Your task to perform on an android device: Open the stopwatch Image 0: 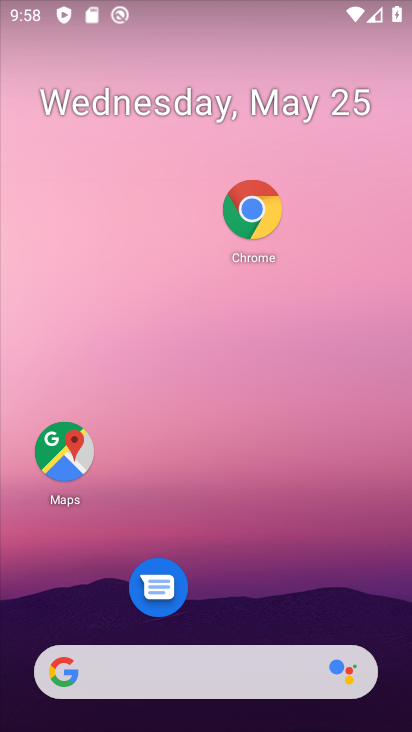
Step 0: drag from (241, 628) to (241, 201)
Your task to perform on an android device: Open the stopwatch Image 1: 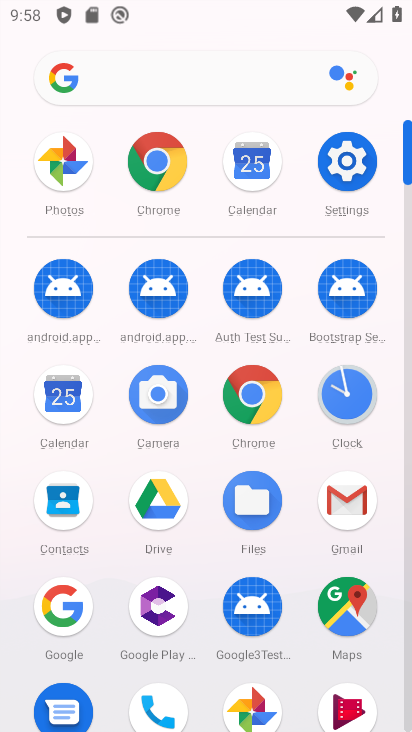
Step 1: click (338, 390)
Your task to perform on an android device: Open the stopwatch Image 2: 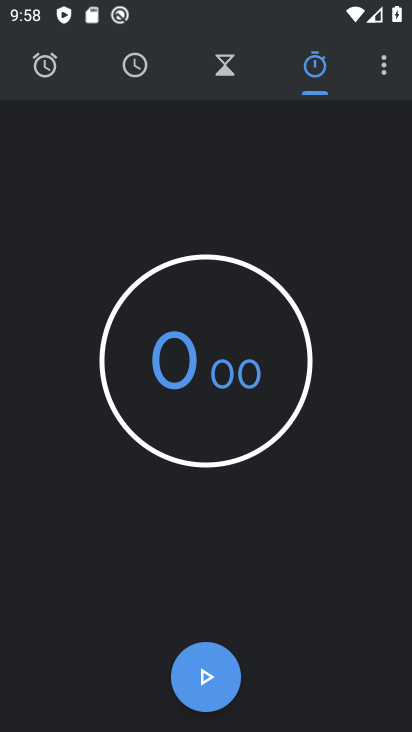
Step 2: click (185, 684)
Your task to perform on an android device: Open the stopwatch Image 3: 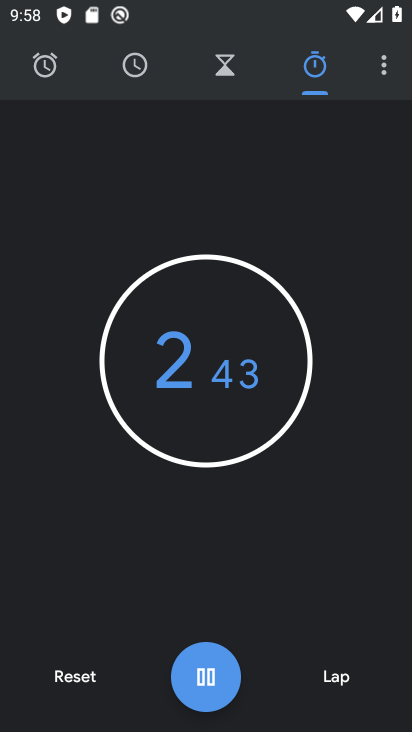
Step 3: task complete